Your task to perform on an android device: open app "DuckDuckGo Privacy Browser" (install if not already installed) Image 0: 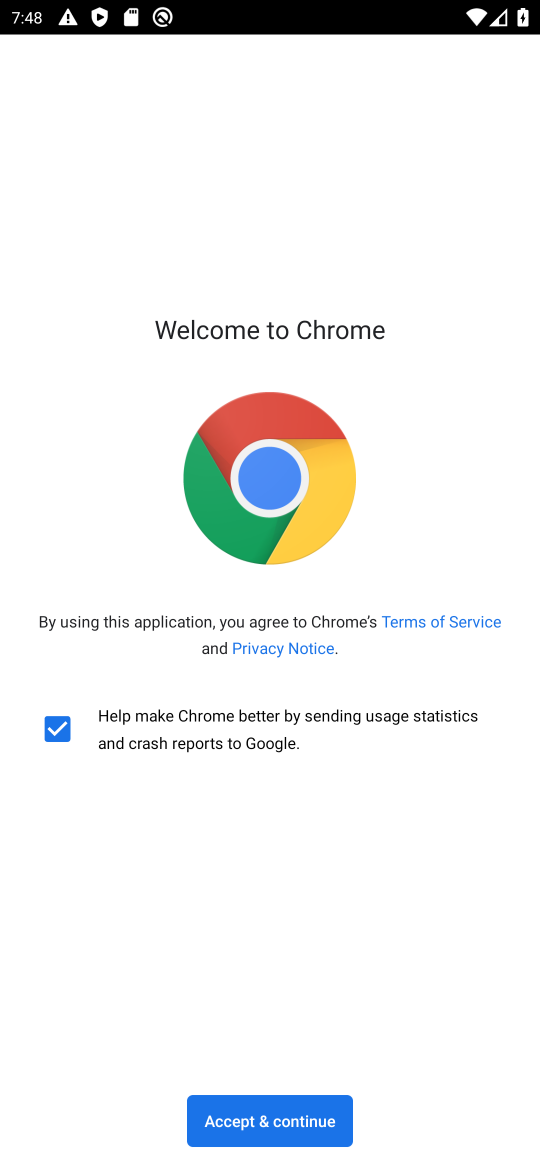
Step 0: press home button
Your task to perform on an android device: open app "DuckDuckGo Privacy Browser" (install if not already installed) Image 1: 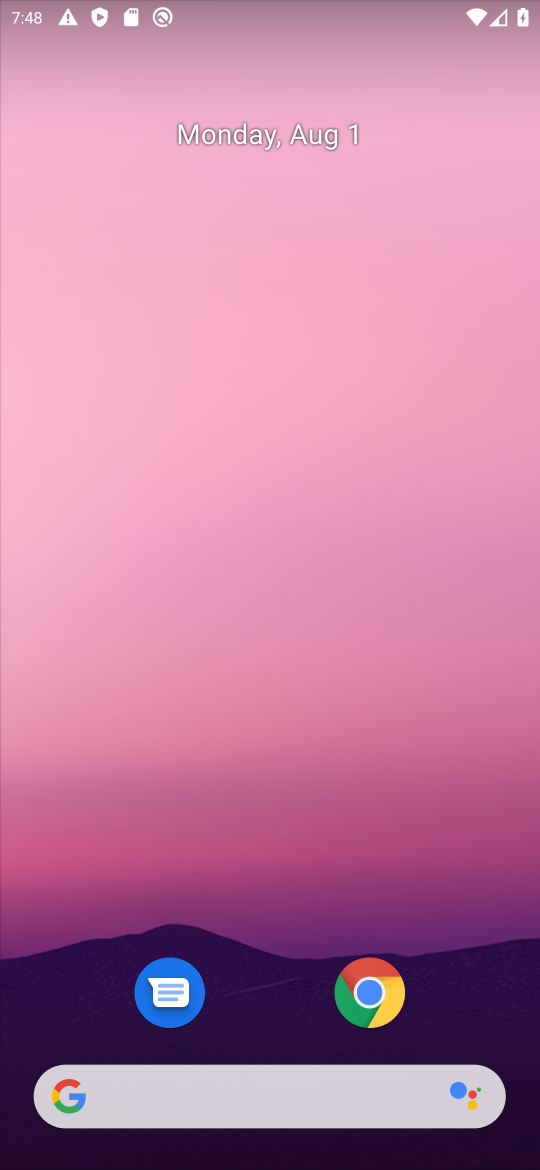
Step 1: drag from (464, 1014) to (453, 74)
Your task to perform on an android device: open app "DuckDuckGo Privacy Browser" (install if not already installed) Image 2: 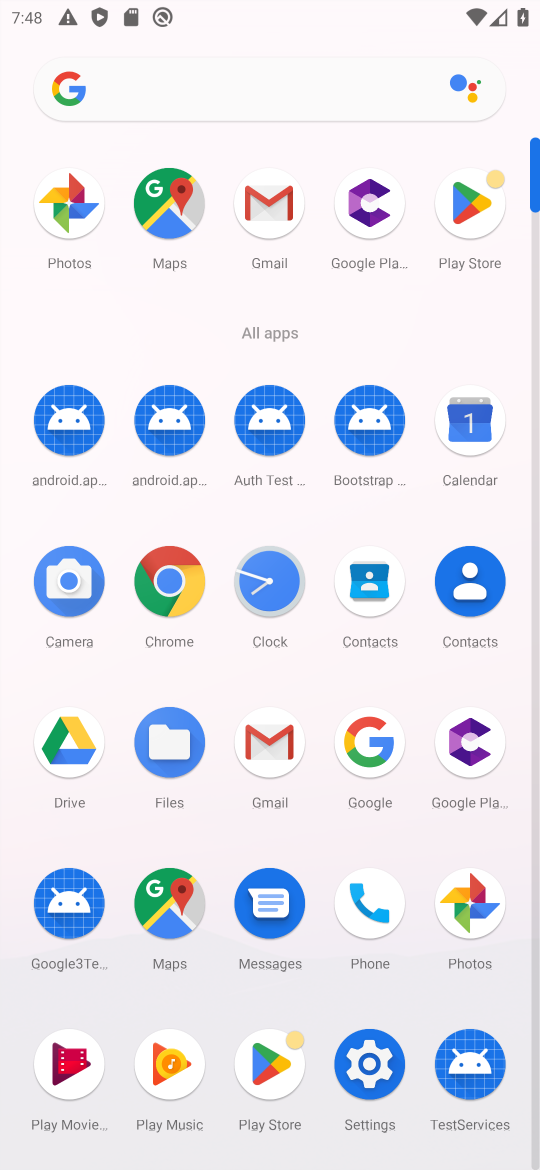
Step 2: click (489, 221)
Your task to perform on an android device: open app "DuckDuckGo Privacy Browser" (install if not already installed) Image 3: 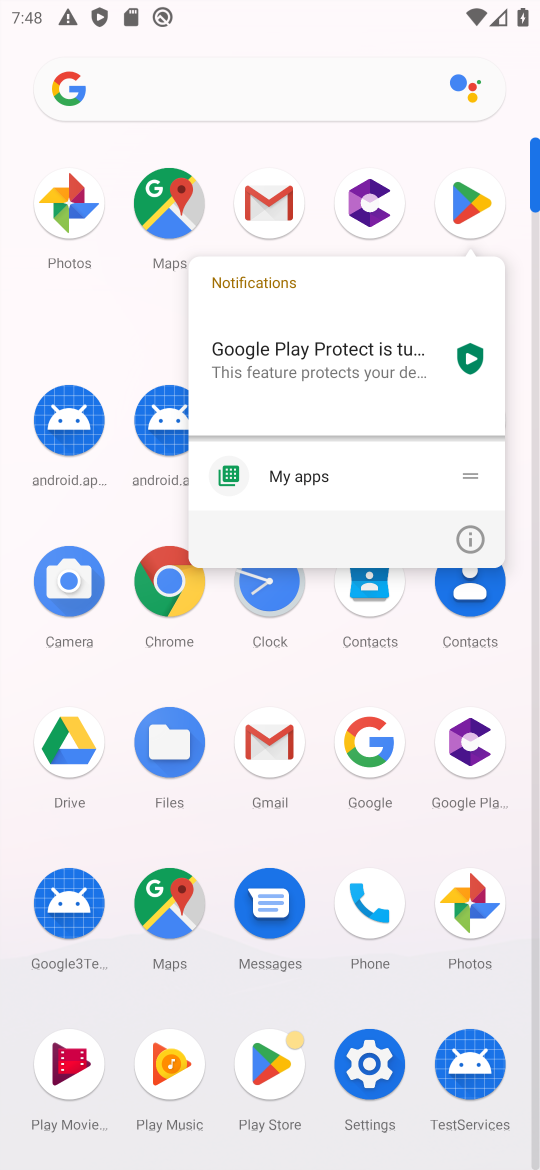
Step 3: click (426, 206)
Your task to perform on an android device: open app "DuckDuckGo Privacy Browser" (install if not already installed) Image 4: 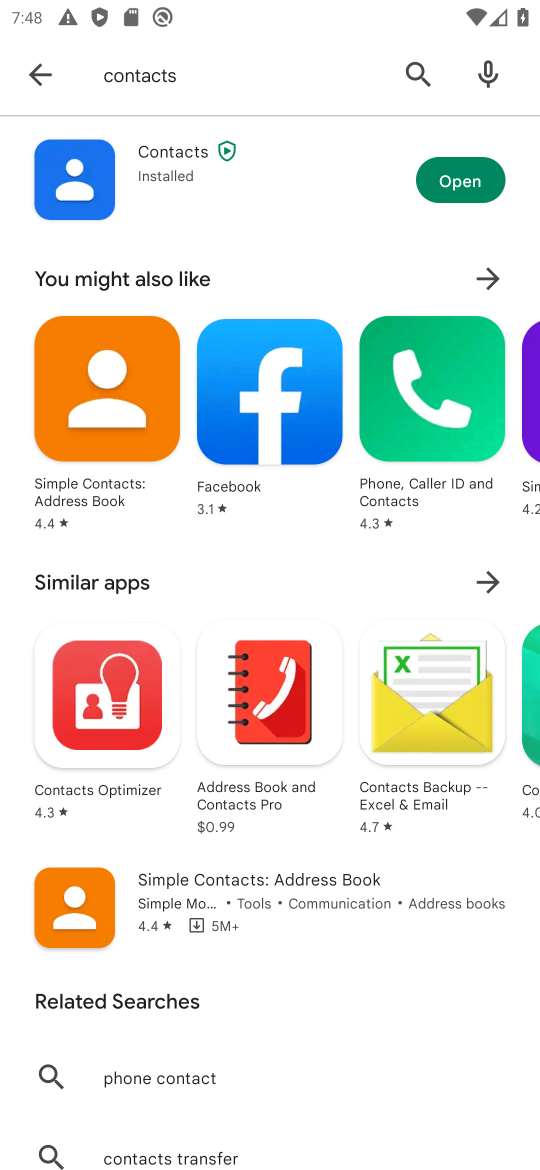
Step 4: click (333, 84)
Your task to perform on an android device: open app "DuckDuckGo Privacy Browser" (install if not already installed) Image 5: 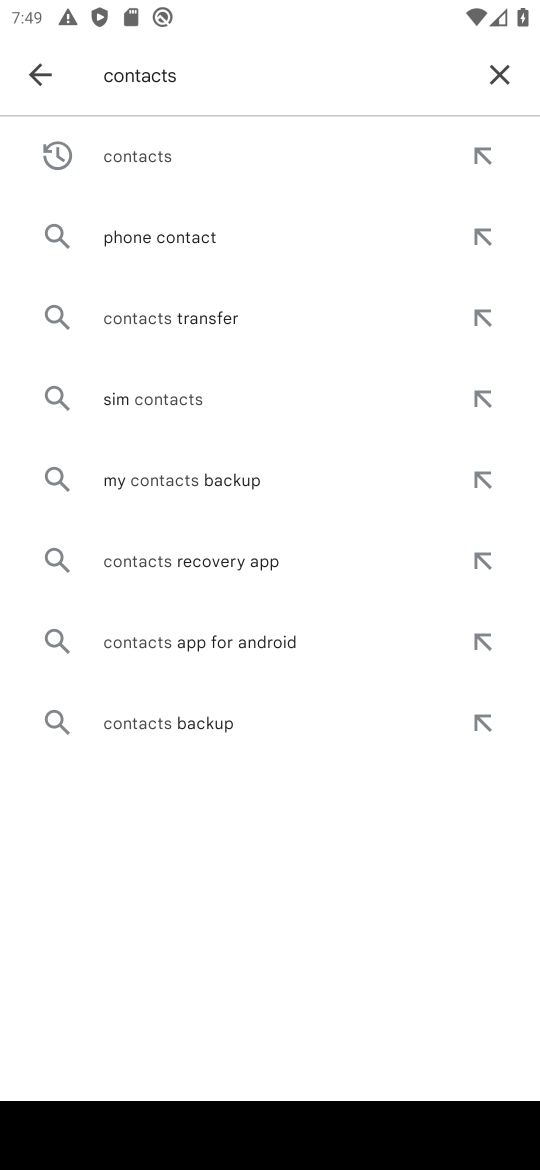
Step 5: click (504, 79)
Your task to perform on an android device: open app "DuckDuckGo Privacy Browser" (install if not already installed) Image 6: 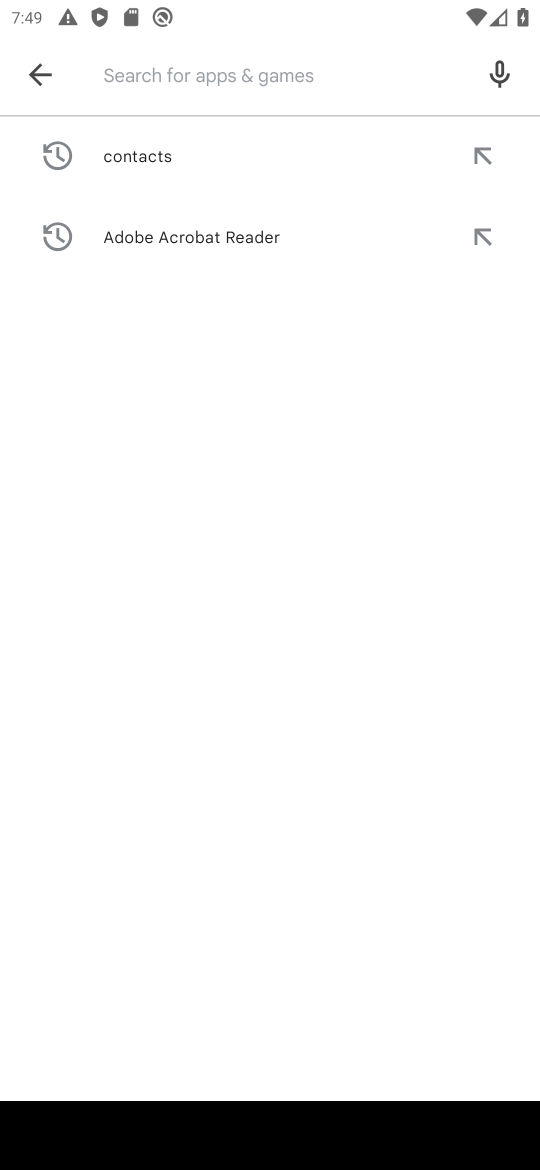
Step 6: type "DuckDuckGo Privacy Browser"
Your task to perform on an android device: open app "DuckDuckGo Privacy Browser" (install if not already installed) Image 7: 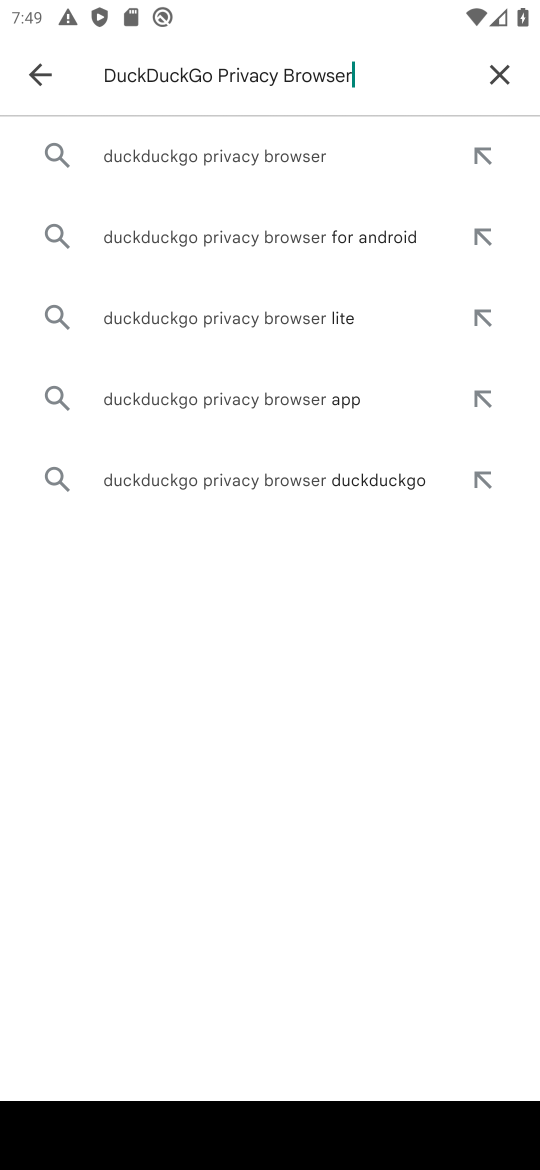
Step 7: press enter
Your task to perform on an android device: open app "DuckDuckGo Privacy Browser" (install if not already installed) Image 8: 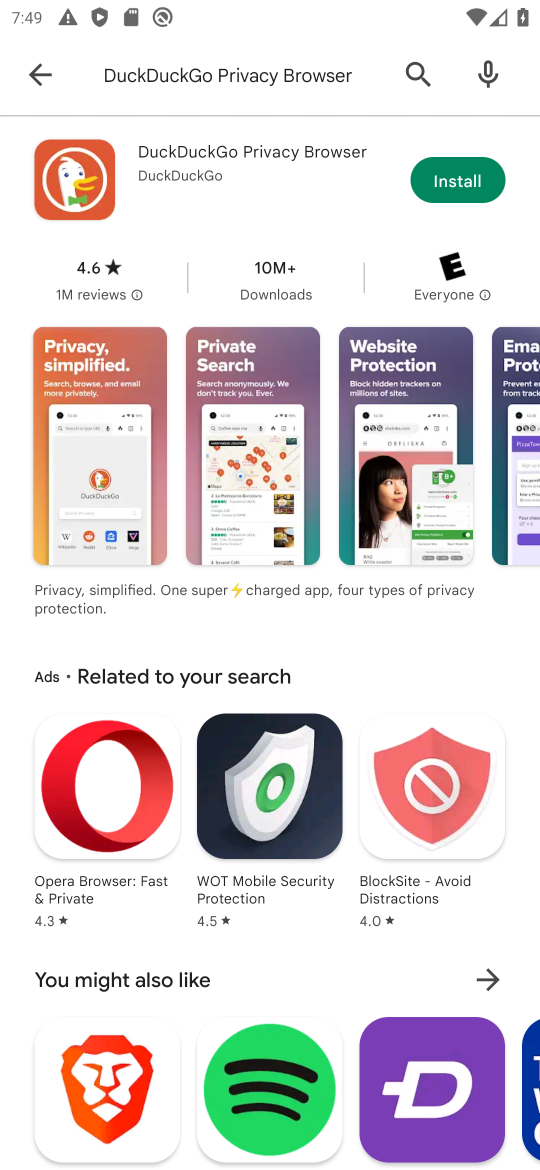
Step 8: click (435, 187)
Your task to perform on an android device: open app "DuckDuckGo Privacy Browser" (install if not already installed) Image 9: 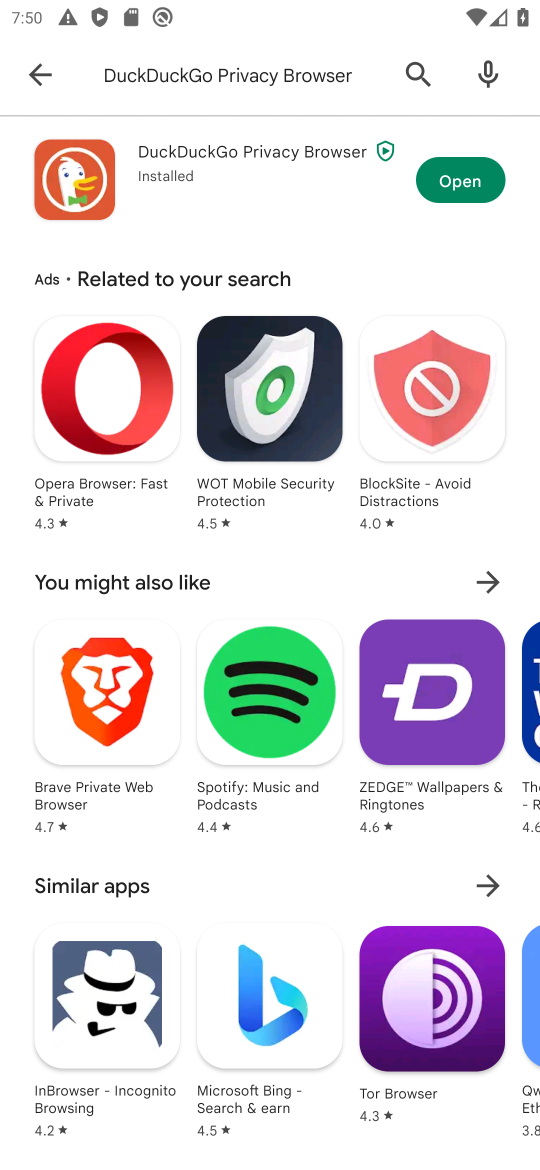
Step 9: click (471, 173)
Your task to perform on an android device: open app "DuckDuckGo Privacy Browser" (install if not already installed) Image 10: 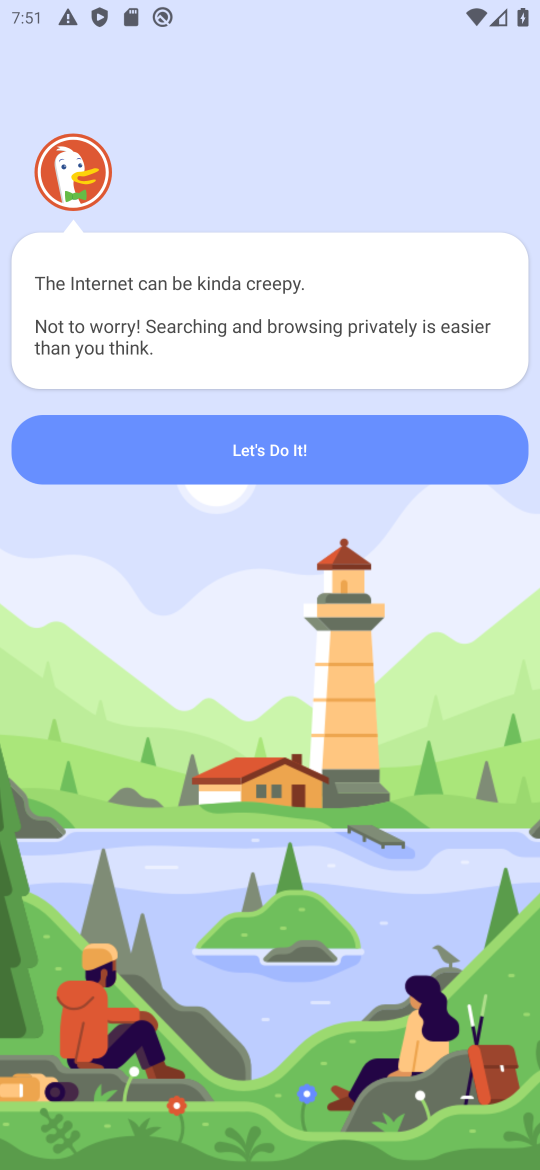
Step 10: task complete